Your task to perform on an android device: open a bookmark in the chrome app Image 0: 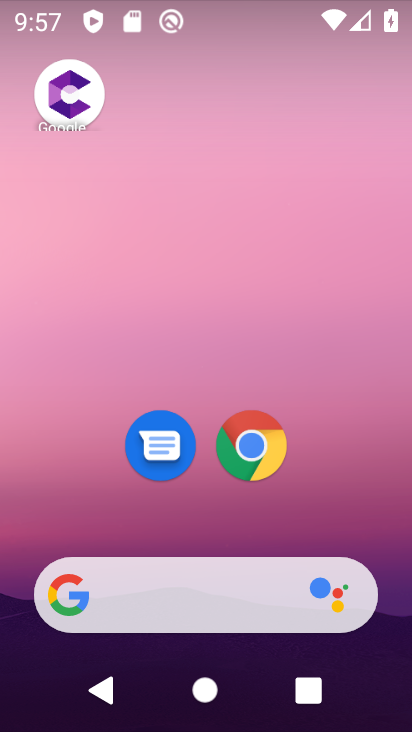
Step 0: drag from (245, 376) to (261, 265)
Your task to perform on an android device: open a bookmark in the chrome app Image 1: 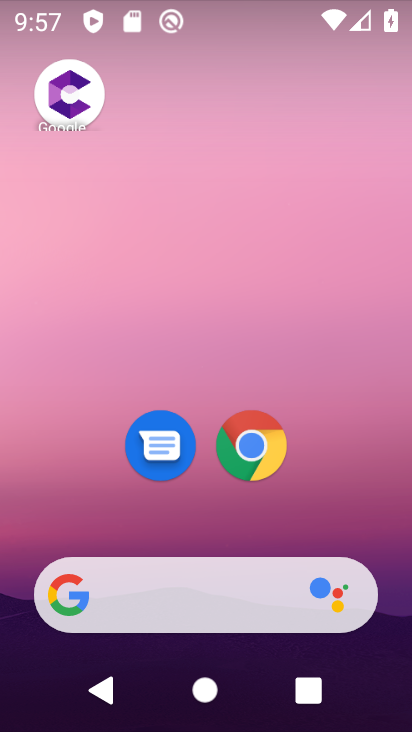
Step 1: drag from (322, 436) to (322, 18)
Your task to perform on an android device: open a bookmark in the chrome app Image 2: 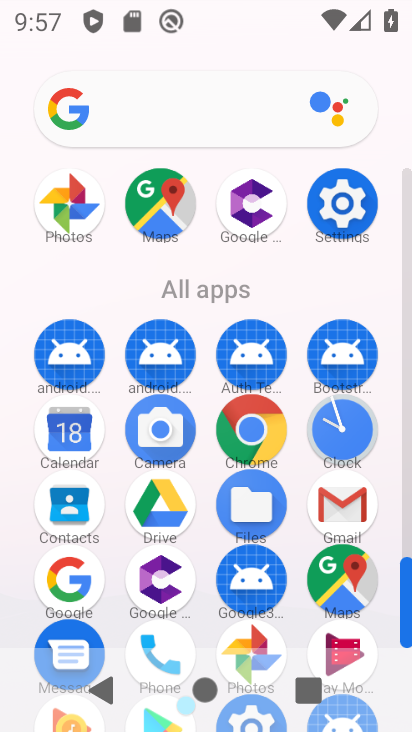
Step 2: click (242, 421)
Your task to perform on an android device: open a bookmark in the chrome app Image 3: 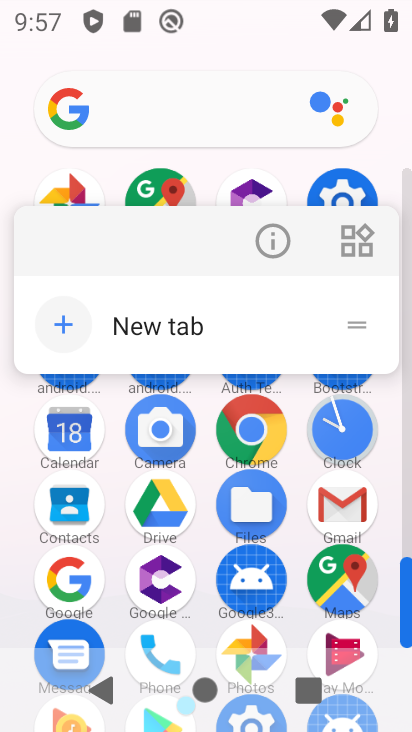
Step 3: click (263, 412)
Your task to perform on an android device: open a bookmark in the chrome app Image 4: 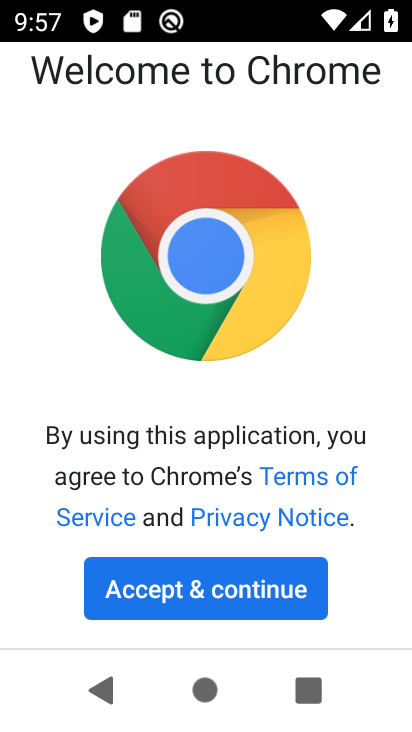
Step 4: click (229, 577)
Your task to perform on an android device: open a bookmark in the chrome app Image 5: 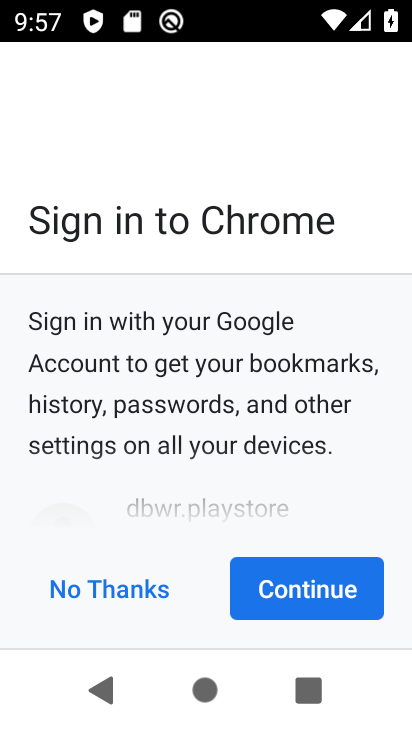
Step 5: click (297, 570)
Your task to perform on an android device: open a bookmark in the chrome app Image 6: 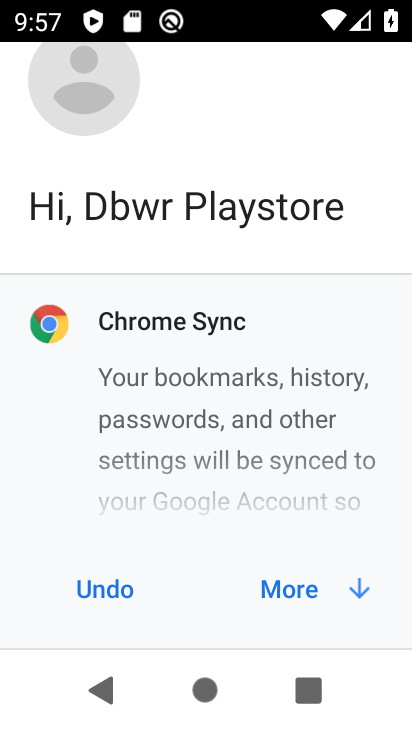
Step 6: click (339, 591)
Your task to perform on an android device: open a bookmark in the chrome app Image 7: 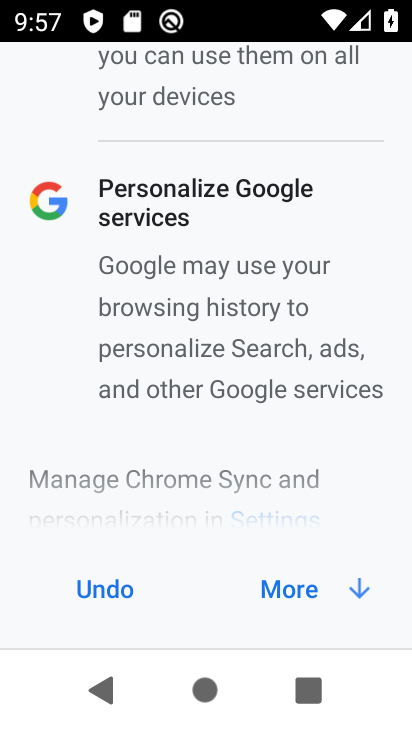
Step 7: click (339, 591)
Your task to perform on an android device: open a bookmark in the chrome app Image 8: 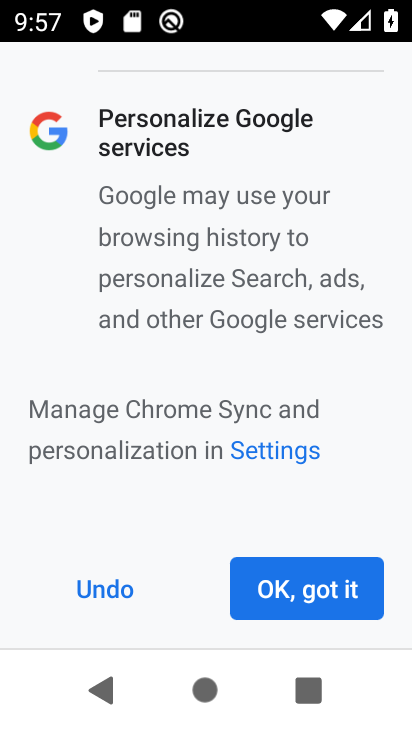
Step 8: click (339, 591)
Your task to perform on an android device: open a bookmark in the chrome app Image 9: 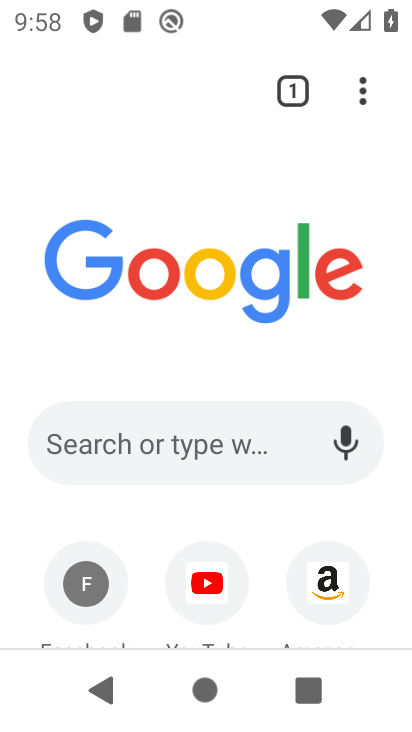
Step 9: click (221, 603)
Your task to perform on an android device: open a bookmark in the chrome app Image 10: 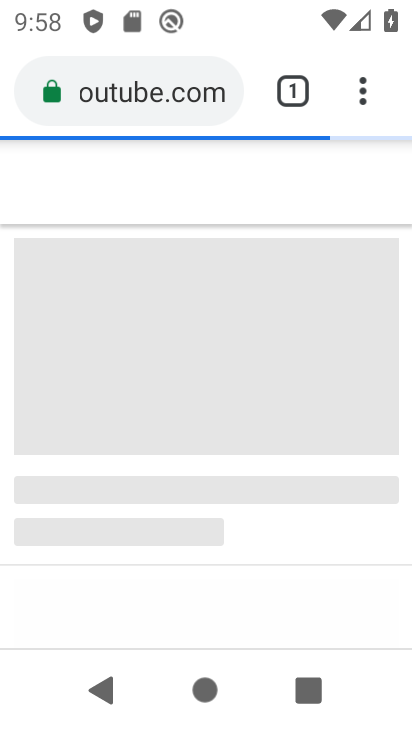
Step 10: click (221, 603)
Your task to perform on an android device: open a bookmark in the chrome app Image 11: 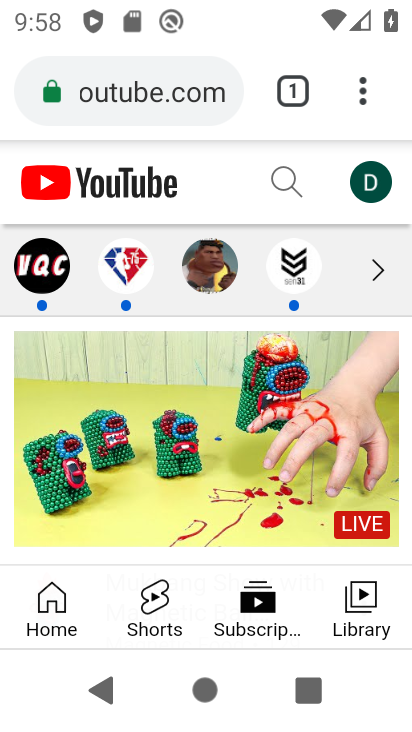
Step 11: task complete